Your task to perform on an android device: Go to notification settings Image 0: 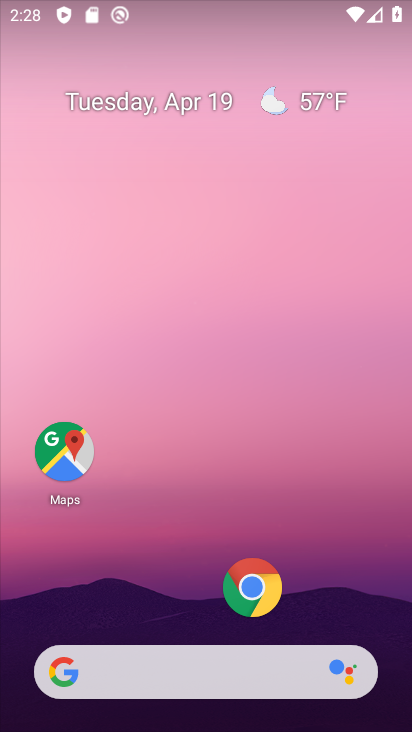
Step 0: drag from (211, 26) to (261, 17)
Your task to perform on an android device: Go to notification settings Image 1: 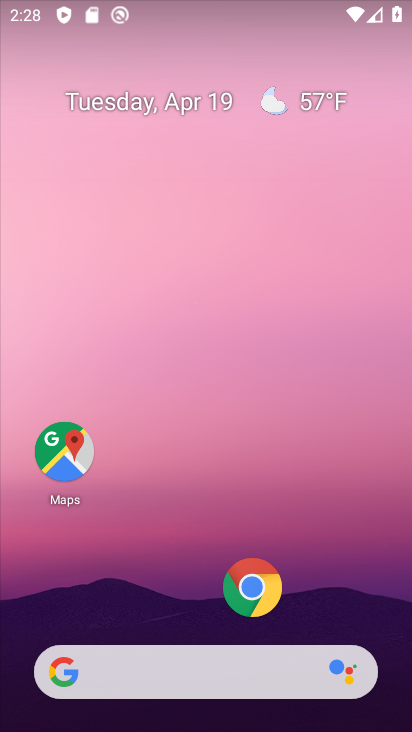
Step 1: drag from (195, 562) to (307, 24)
Your task to perform on an android device: Go to notification settings Image 2: 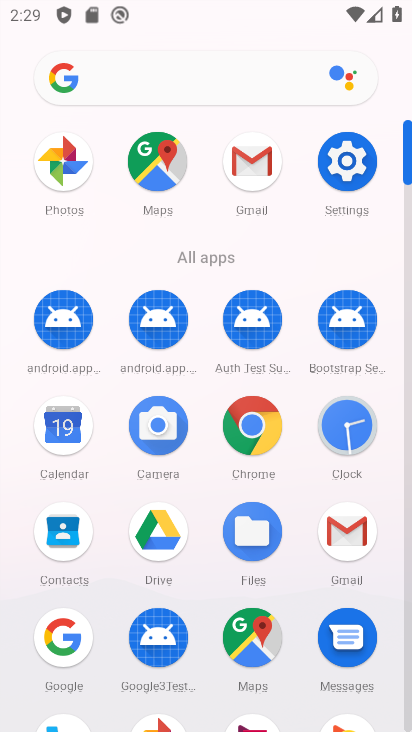
Step 2: click (342, 187)
Your task to perform on an android device: Go to notification settings Image 3: 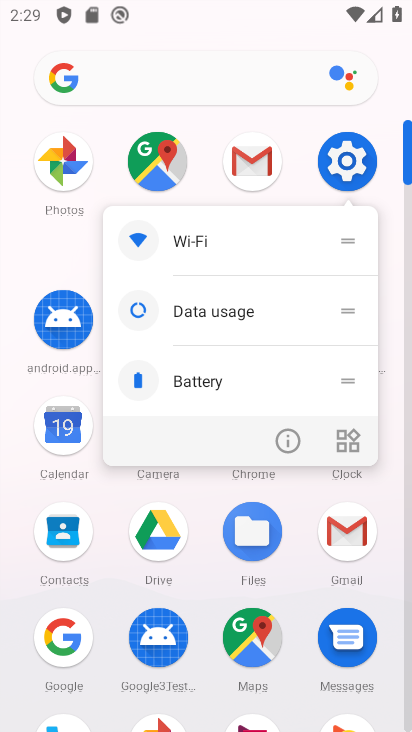
Step 3: click (351, 147)
Your task to perform on an android device: Go to notification settings Image 4: 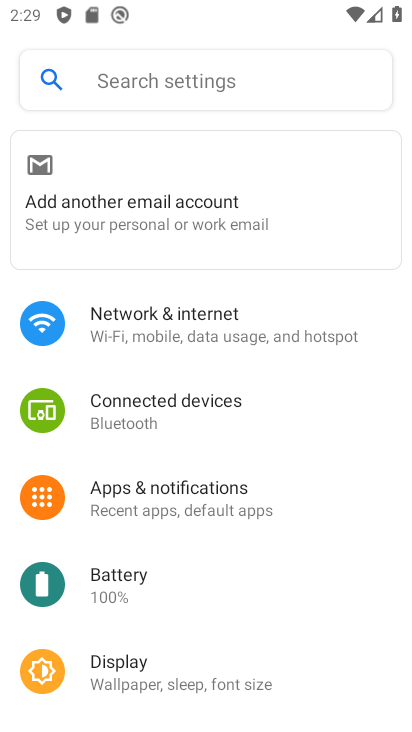
Step 4: click (185, 516)
Your task to perform on an android device: Go to notification settings Image 5: 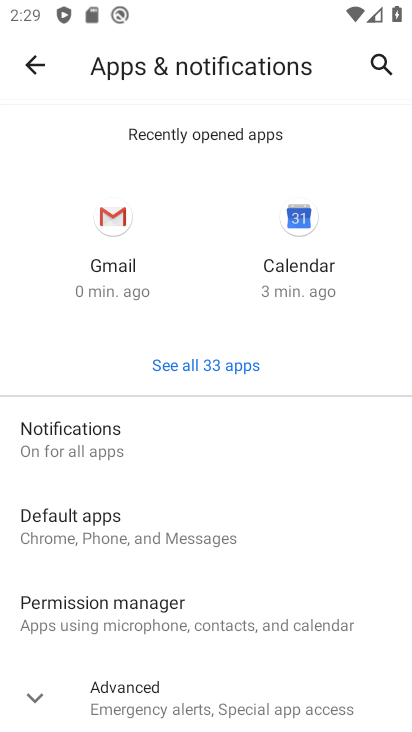
Step 5: click (95, 444)
Your task to perform on an android device: Go to notification settings Image 6: 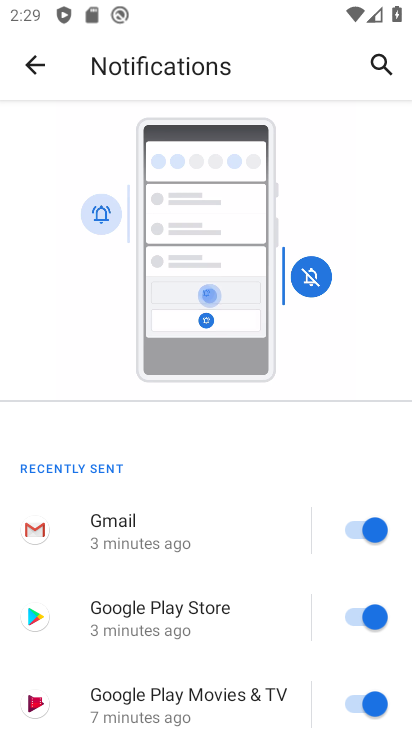
Step 6: task complete